Your task to perform on an android device: open app "LinkedIn" (install if not already installed) and go to login screen Image 0: 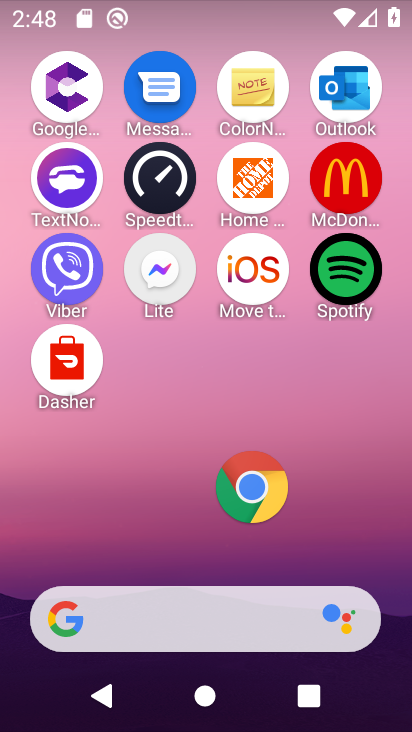
Step 0: drag from (191, 512) to (242, 251)
Your task to perform on an android device: open app "LinkedIn" (install if not already installed) and go to login screen Image 1: 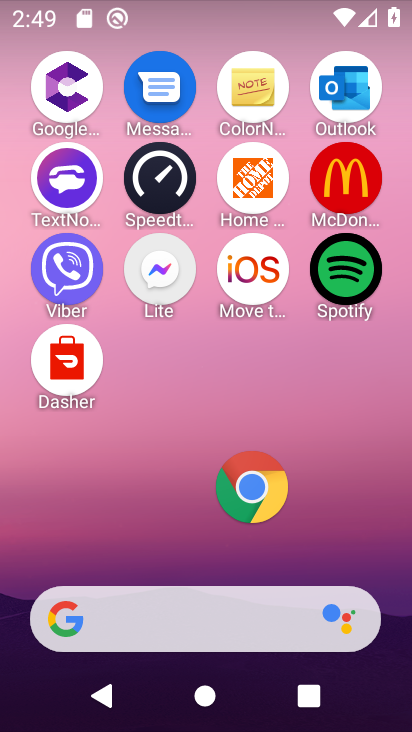
Step 1: drag from (162, 542) to (252, 148)
Your task to perform on an android device: open app "LinkedIn" (install if not already installed) and go to login screen Image 2: 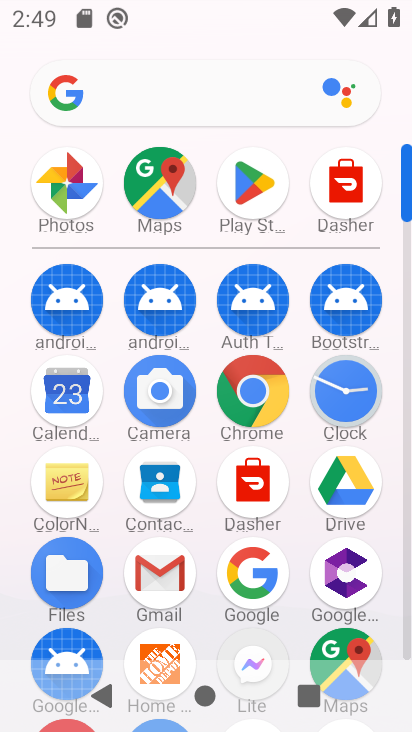
Step 2: click (255, 163)
Your task to perform on an android device: open app "LinkedIn" (install if not already installed) and go to login screen Image 3: 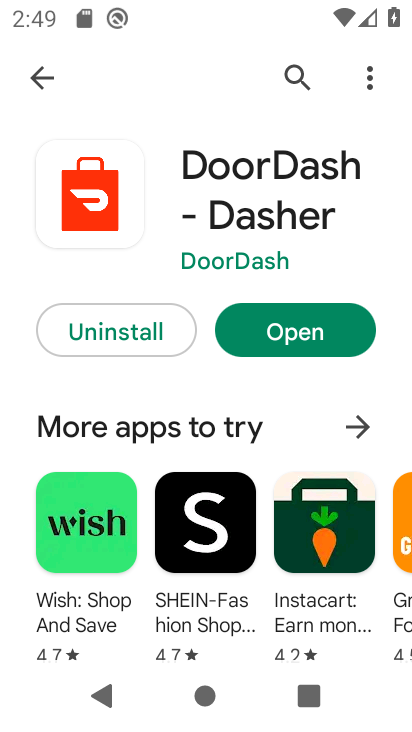
Step 3: click (57, 75)
Your task to perform on an android device: open app "LinkedIn" (install if not already installed) and go to login screen Image 4: 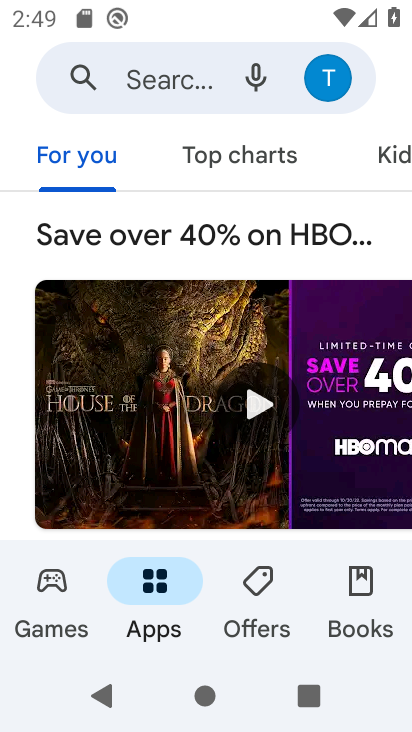
Step 4: click (142, 77)
Your task to perform on an android device: open app "LinkedIn" (install if not already installed) and go to login screen Image 5: 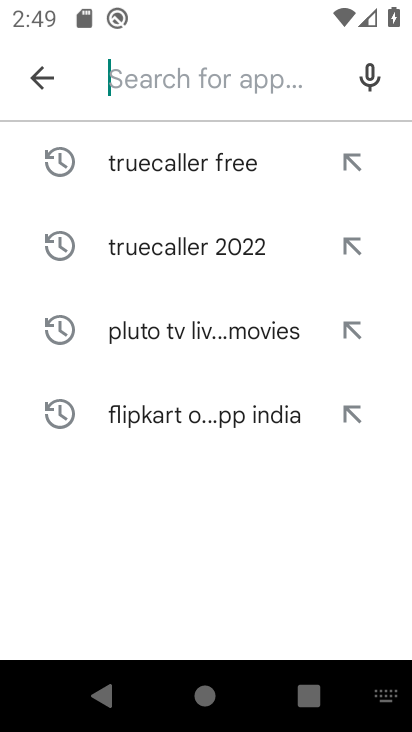
Step 5: type "LinkedIn "
Your task to perform on an android device: open app "LinkedIn" (install if not already installed) and go to login screen Image 6: 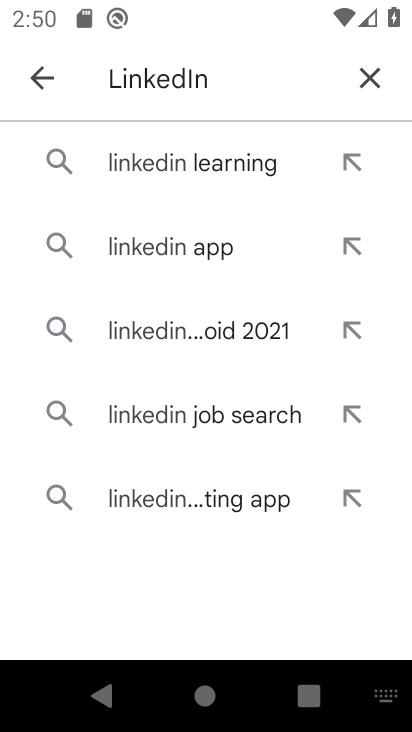
Step 6: click (183, 250)
Your task to perform on an android device: open app "LinkedIn" (install if not already installed) and go to login screen Image 7: 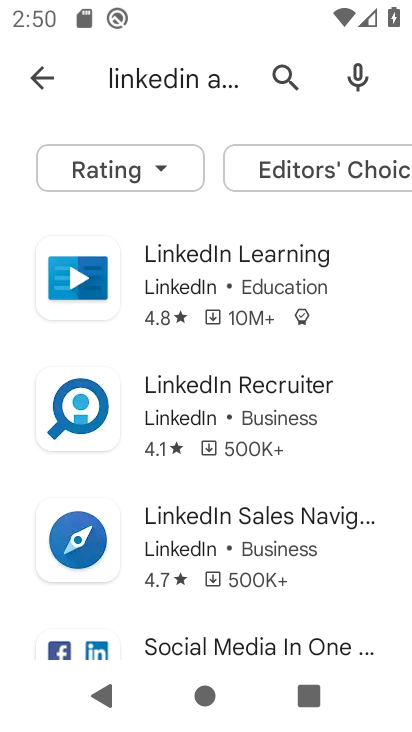
Step 7: click (200, 275)
Your task to perform on an android device: open app "LinkedIn" (install if not already installed) and go to login screen Image 8: 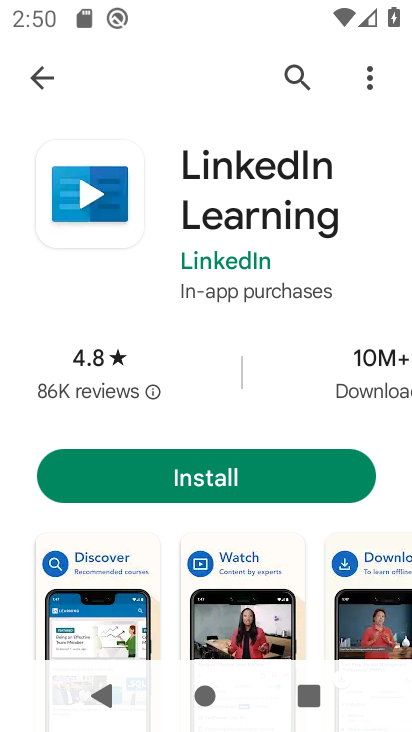
Step 8: click (195, 470)
Your task to perform on an android device: open app "LinkedIn" (install if not already installed) and go to login screen Image 9: 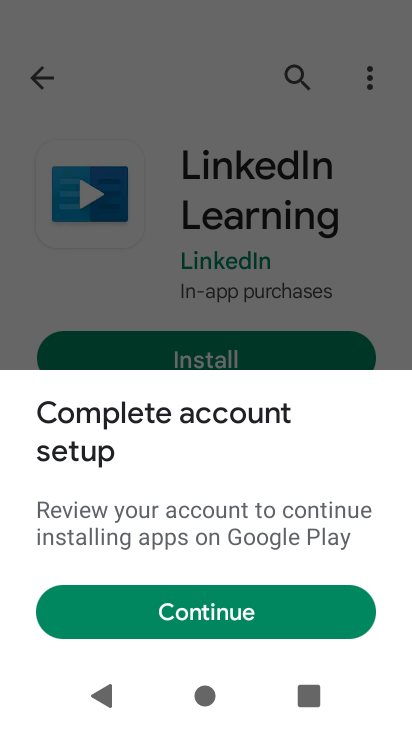
Step 9: task complete